Your task to perform on an android device: Do I have any events this weekend? Image 0: 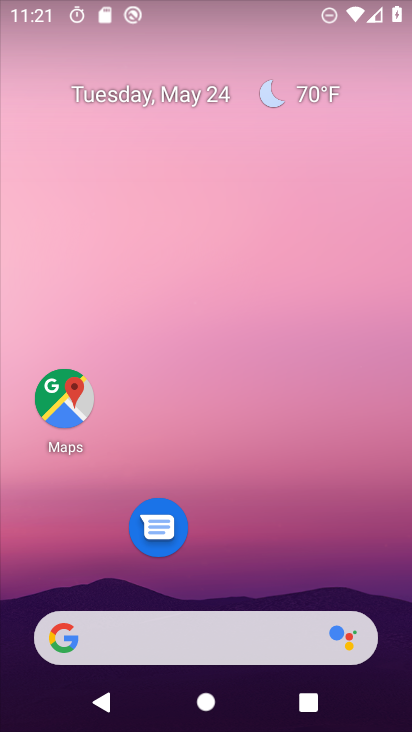
Step 0: drag from (313, 545) to (272, 134)
Your task to perform on an android device: Do I have any events this weekend? Image 1: 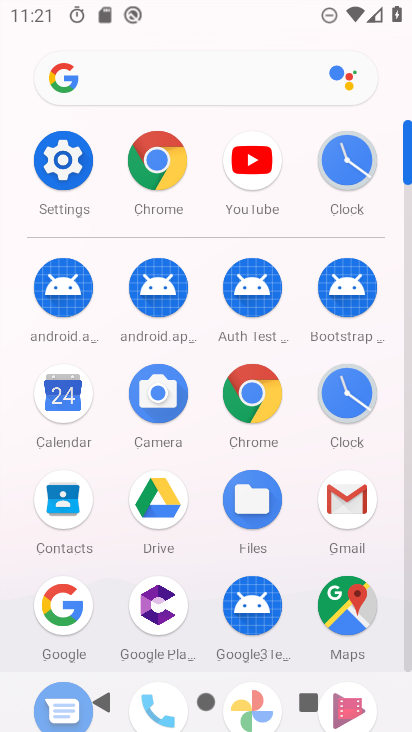
Step 1: drag from (197, 450) to (264, 508)
Your task to perform on an android device: Do I have any events this weekend? Image 2: 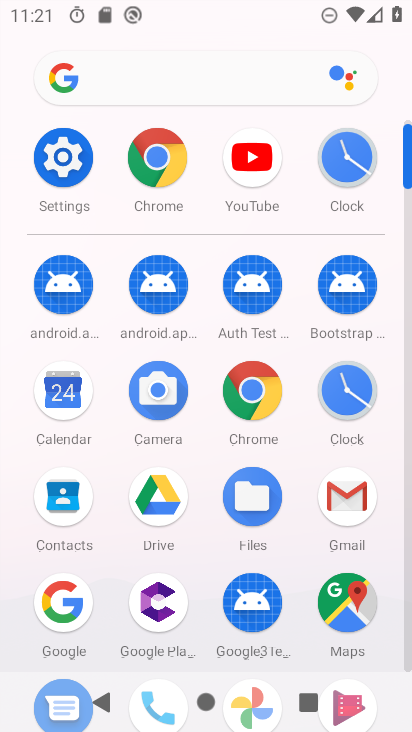
Step 2: click (66, 386)
Your task to perform on an android device: Do I have any events this weekend? Image 3: 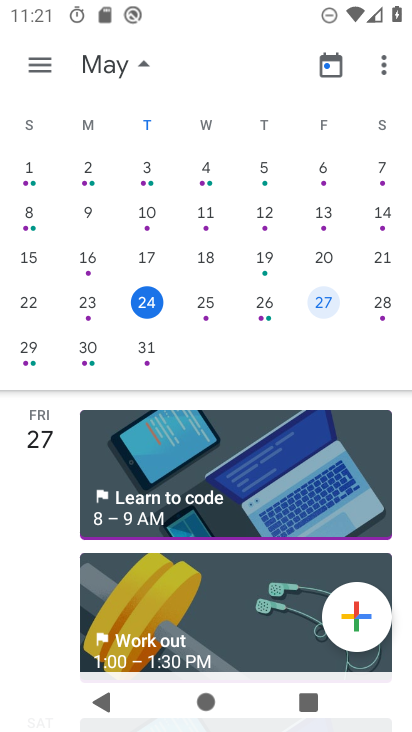
Step 3: click (33, 348)
Your task to perform on an android device: Do I have any events this weekend? Image 4: 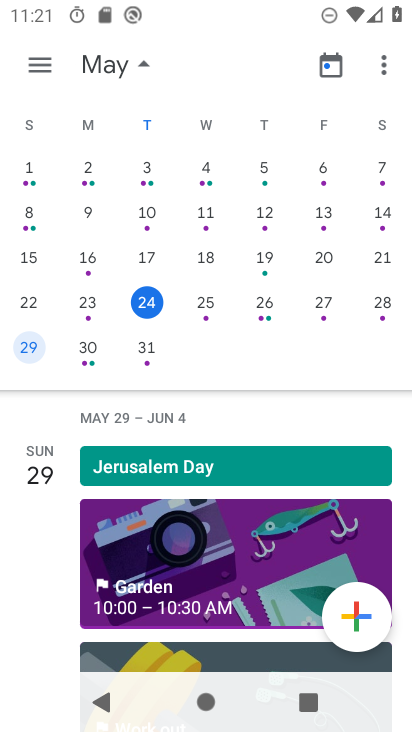
Step 4: task complete